Your task to perform on an android device: Is it going to rain this weekend? Image 0: 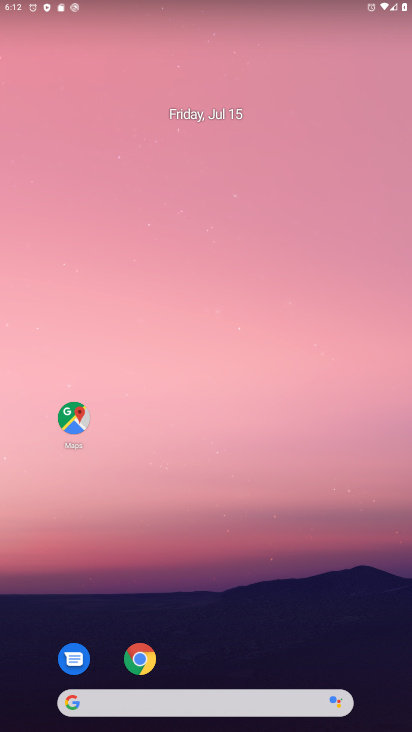
Step 0: drag from (15, 237) to (326, 264)
Your task to perform on an android device: Is it going to rain this weekend? Image 1: 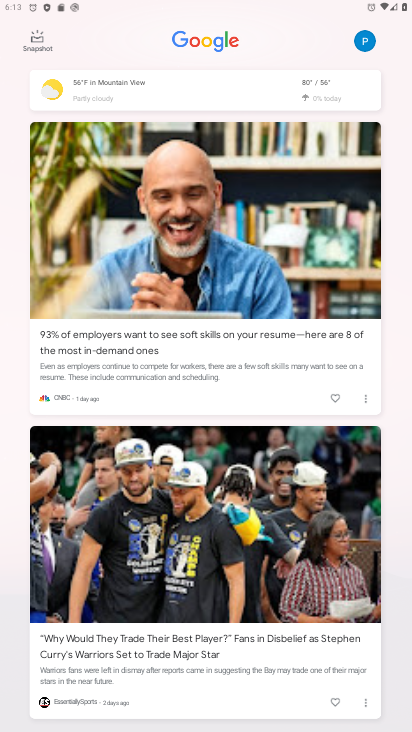
Step 1: click (319, 76)
Your task to perform on an android device: Is it going to rain this weekend? Image 2: 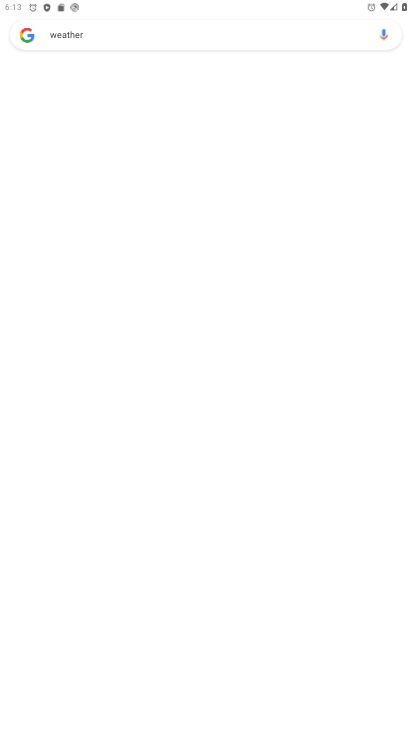
Step 2: click (316, 93)
Your task to perform on an android device: Is it going to rain this weekend? Image 3: 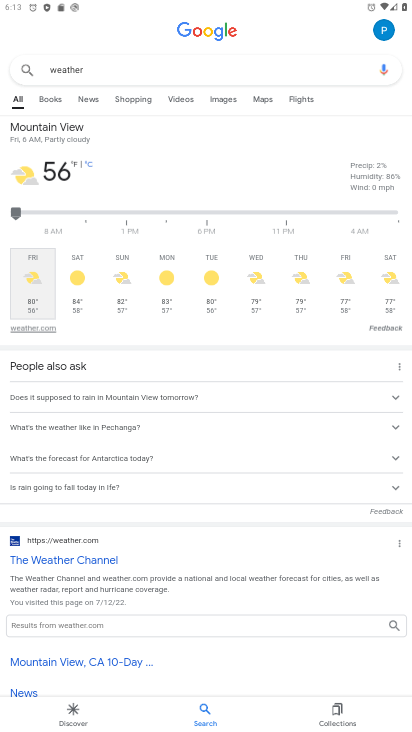
Step 3: task complete